Your task to perform on an android device: Go to Reddit.com Image 0: 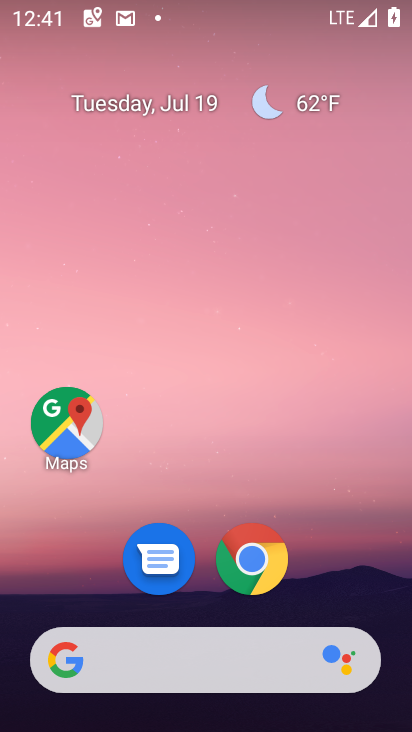
Step 0: drag from (205, 554) to (376, 20)
Your task to perform on an android device: Go to Reddit.com Image 1: 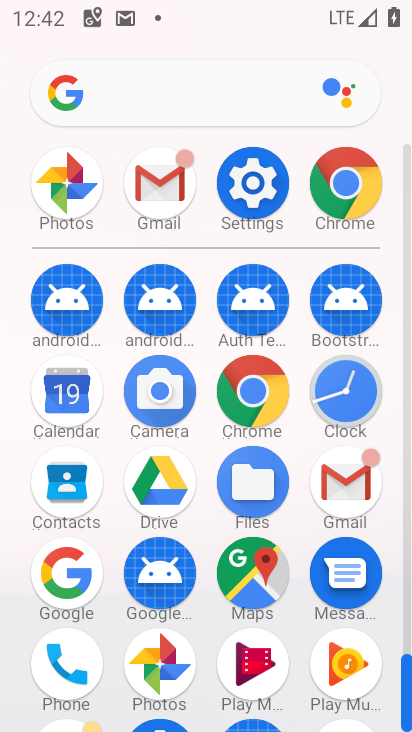
Step 1: click (368, 177)
Your task to perform on an android device: Go to Reddit.com Image 2: 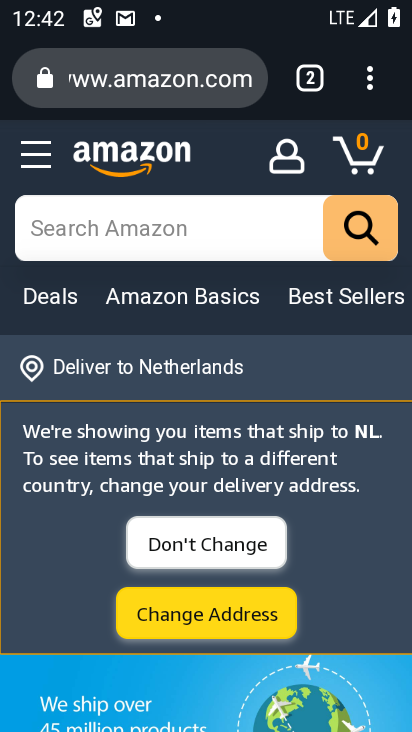
Step 2: click (187, 90)
Your task to perform on an android device: Go to Reddit.com Image 3: 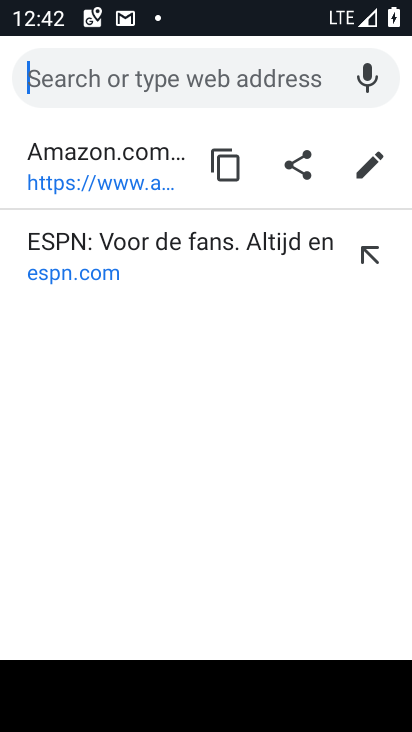
Step 3: type "reddit"
Your task to perform on an android device: Go to Reddit.com Image 4: 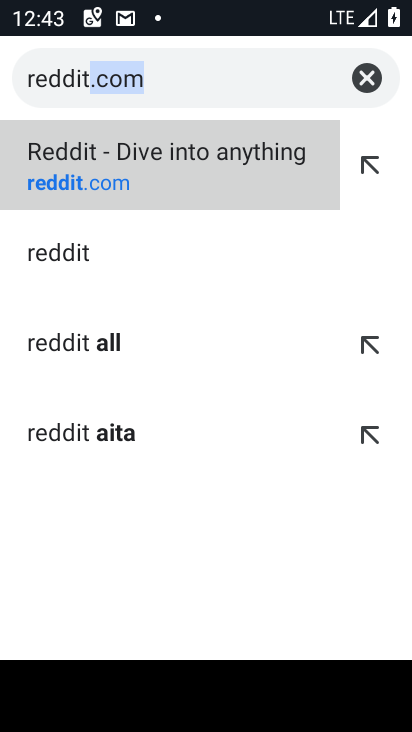
Step 4: click (210, 164)
Your task to perform on an android device: Go to Reddit.com Image 5: 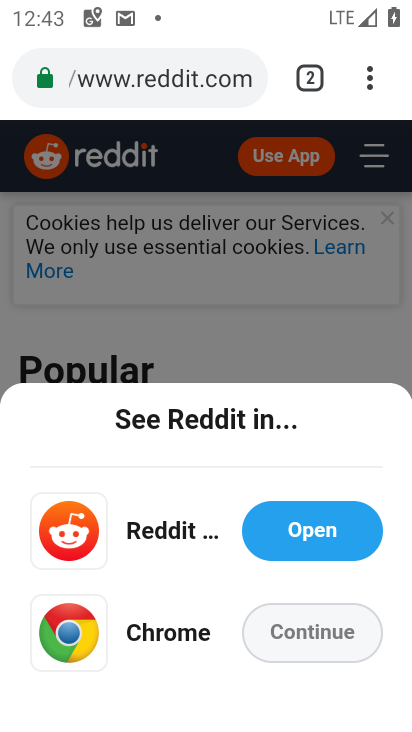
Step 5: task complete